Your task to perform on an android device: install app "Adobe Express: Graphic Design" Image 0: 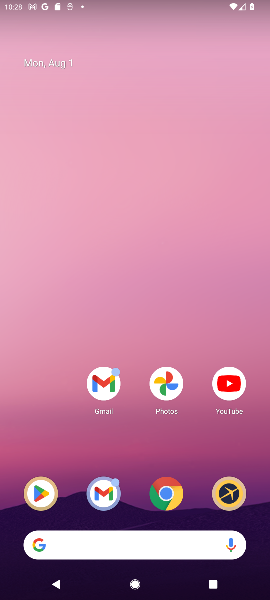
Step 0: drag from (62, 520) to (10, 19)
Your task to perform on an android device: install app "Adobe Express: Graphic Design" Image 1: 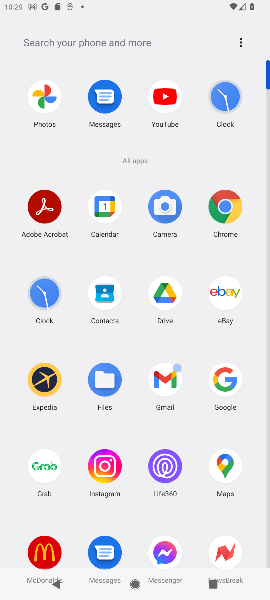
Step 1: click (48, 226)
Your task to perform on an android device: install app "Adobe Express: Graphic Design" Image 2: 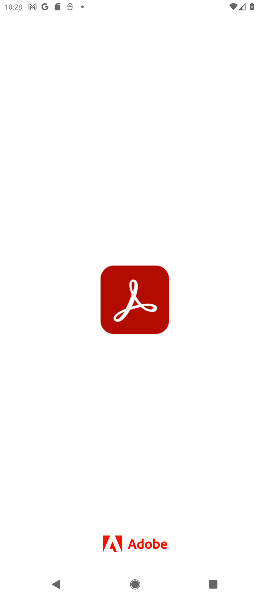
Step 2: task complete